Your task to perform on an android device: Search for sushi restaurants on Maps Image 0: 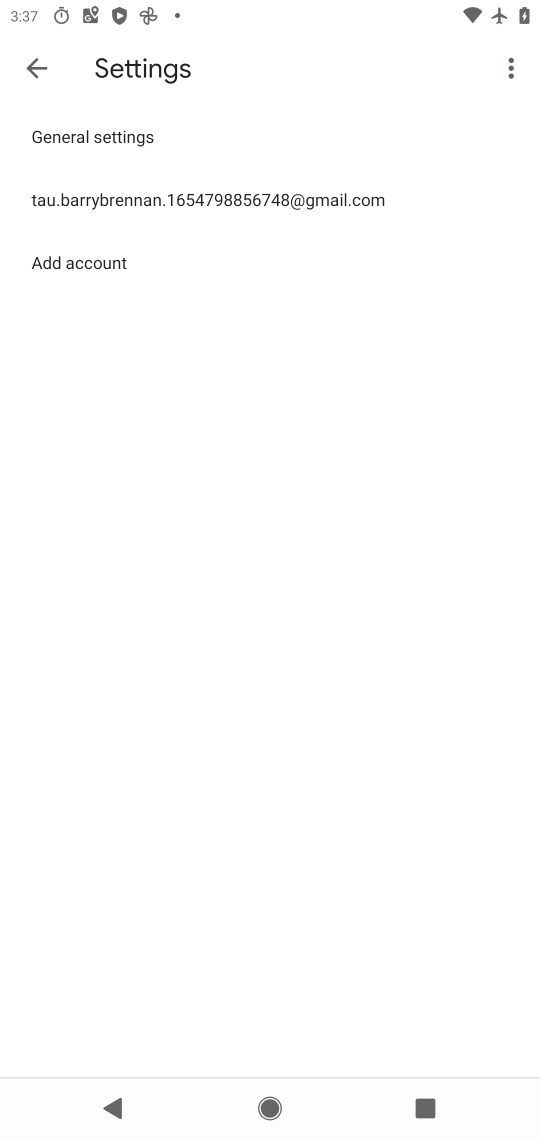
Step 0: press home button
Your task to perform on an android device: Search for sushi restaurants on Maps Image 1: 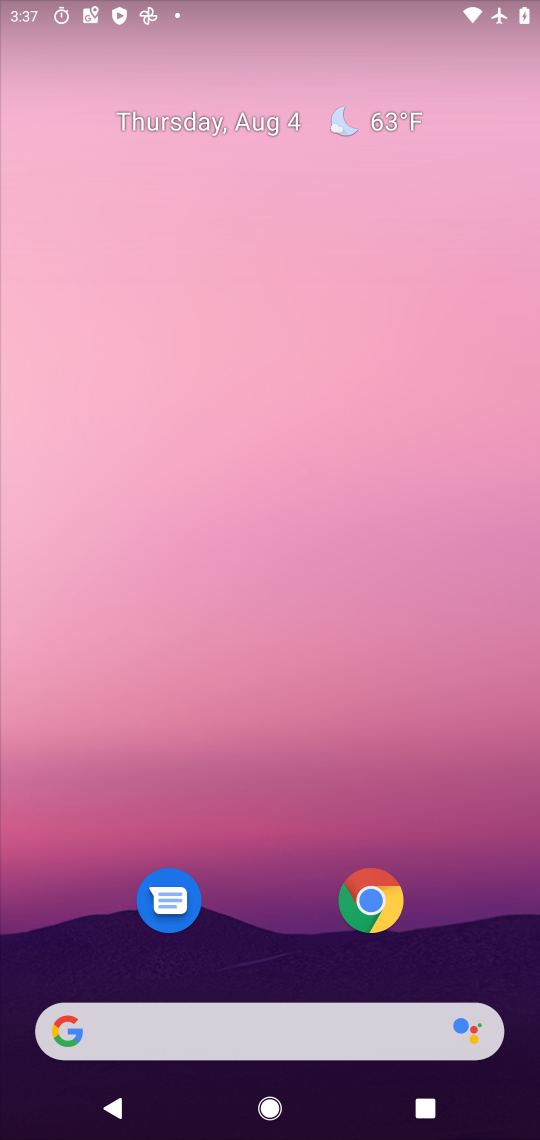
Step 1: drag from (508, 962) to (275, 213)
Your task to perform on an android device: Search for sushi restaurants on Maps Image 2: 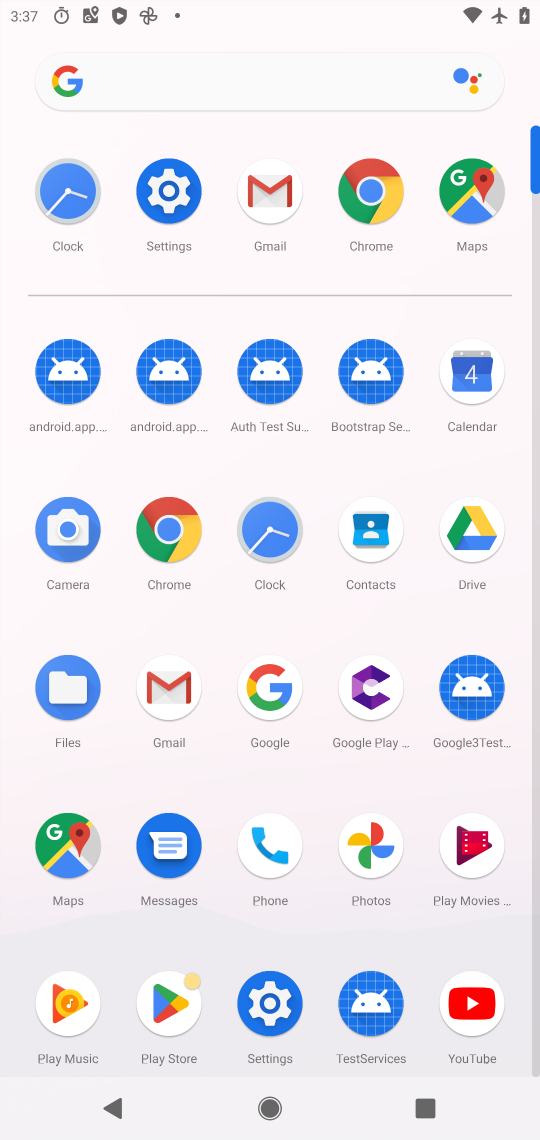
Step 2: click (457, 204)
Your task to perform on an android device: Search for sushi restaurants on Maps Image 3: 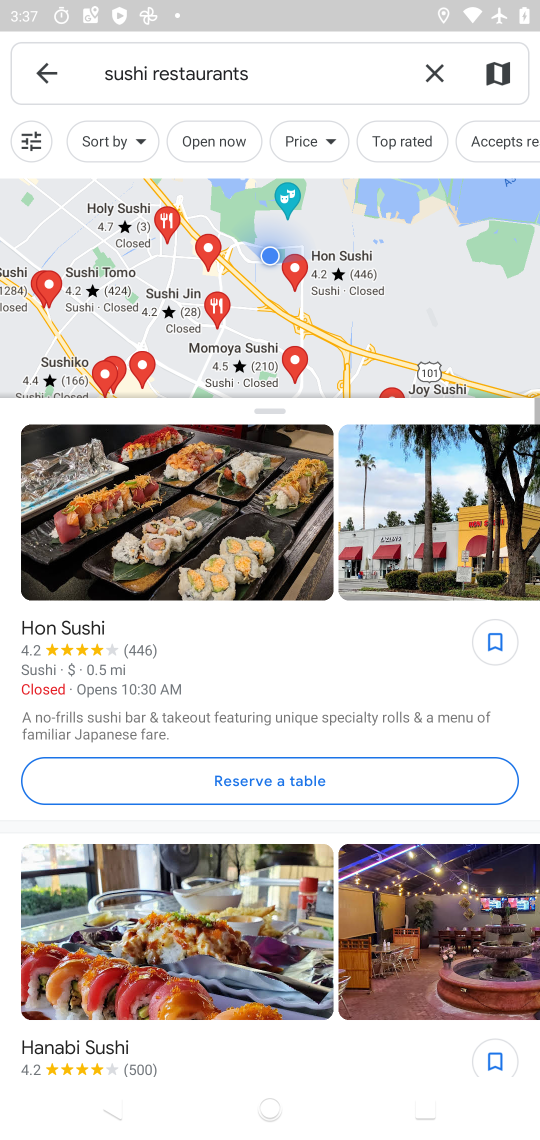
Step 3: task complete